Your task to perform on an android device: Open Google Image 0: 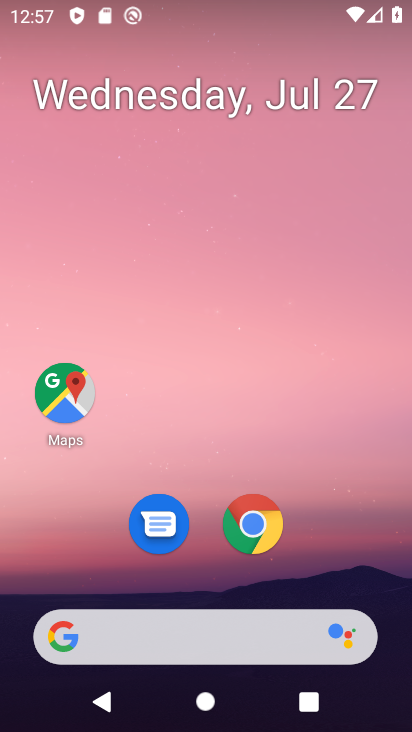
Step 0: click (228, 644)
Your task to perform on an android device: Open Google Image 1: 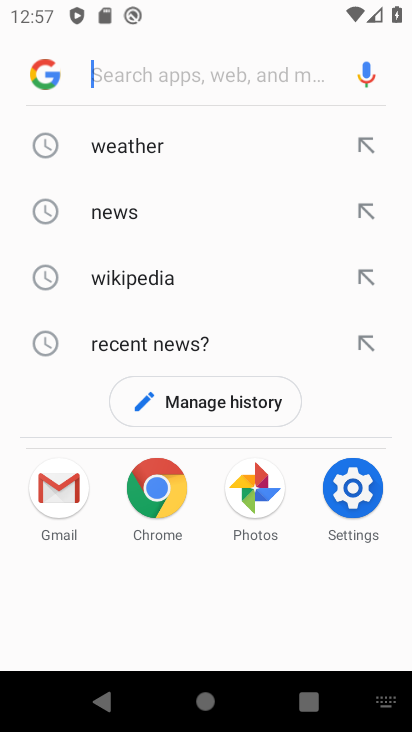
Step 1: click (40, 63)
Your task to perform on an android device: Open Google Image 2: 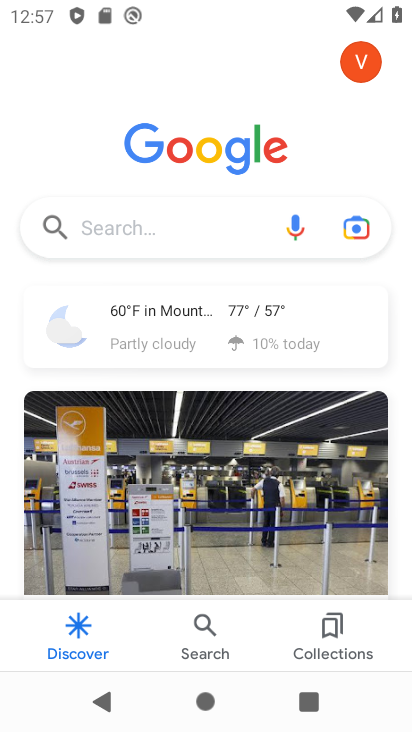
Step 2: task complete